Your task to perform on an android device: turn on improve location accuracy Image 0: 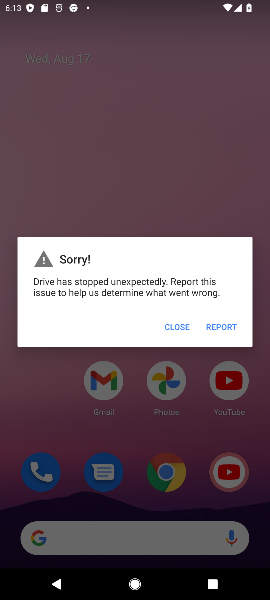
Step 0: click (176, 321)
Your task to perform on an android device: turn on improve location accuracy Image 1: 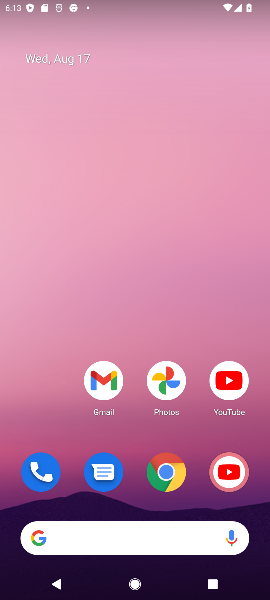
Step 1: drag from (132, 426) to (125, 118)
Your task to perform on an android device: turn on improve location accuracy Image 2: 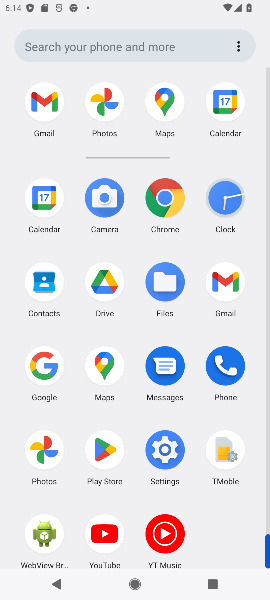
Step 2: click (159, 465)
Your task to perform on an android device: turn on improve location accuracy Image 3: 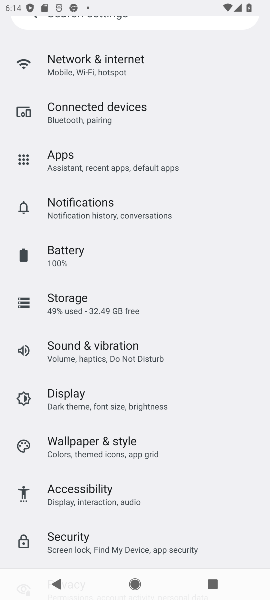
Step 3: drag from (119, 474) to (119, 246)
Your task to perform on an android device: turn on improve location accuracy Image 4: 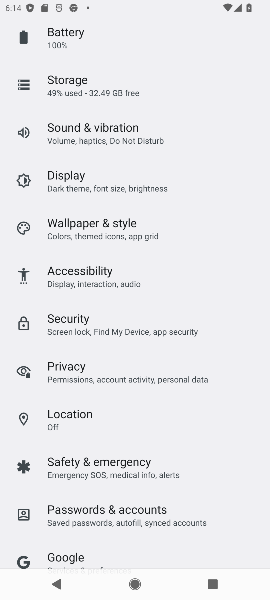
Step 4: click (99, 413)
Your task to perform on an android device: turn on improve location accuracy Image 5: 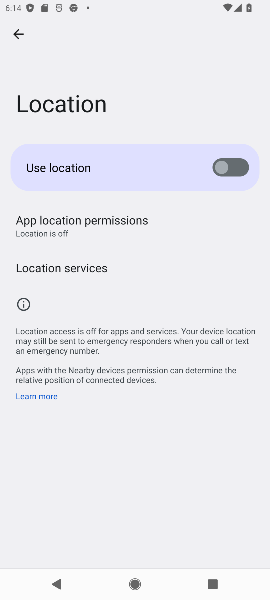
Step 5: click (74, 275)
Your task to perform on an android device: turn on improve location accuracy Image 6: 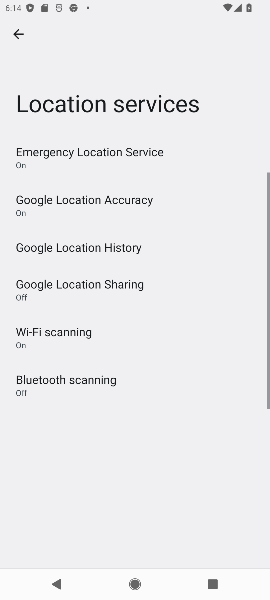
Step 6: click (89, 224)
Your task to perform on an android device: turn on improve location accuracy Image 7: 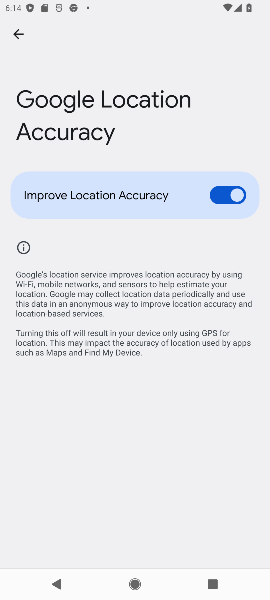
Step 7: task complete